Your task to perform on an android device: open sync settings in chrome Image 0: 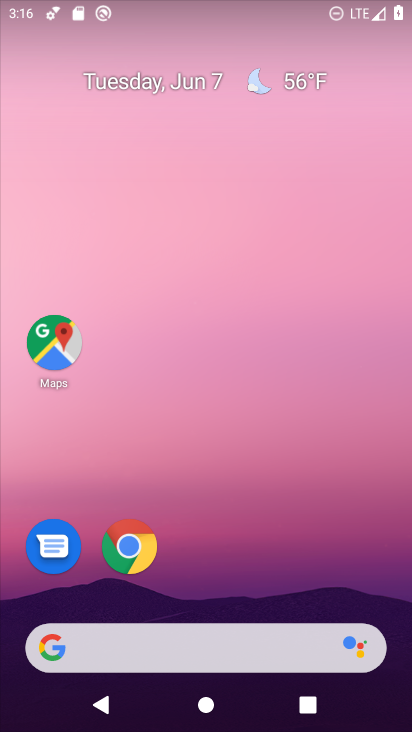
Step 0: drag from (287, 551) to (199, 32)
Your task to perform on an android device: open sync settings in chrome Image 1: 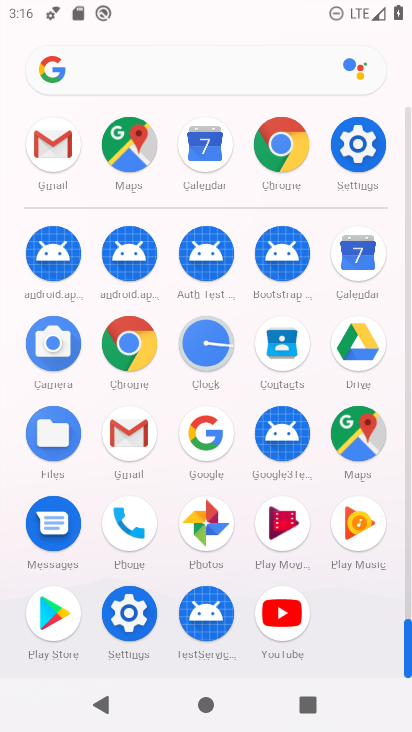
Step 1: drag from (20, 546) to (15, 209)
Your task to perform on an android device: open sync settings in chrome Image 2: 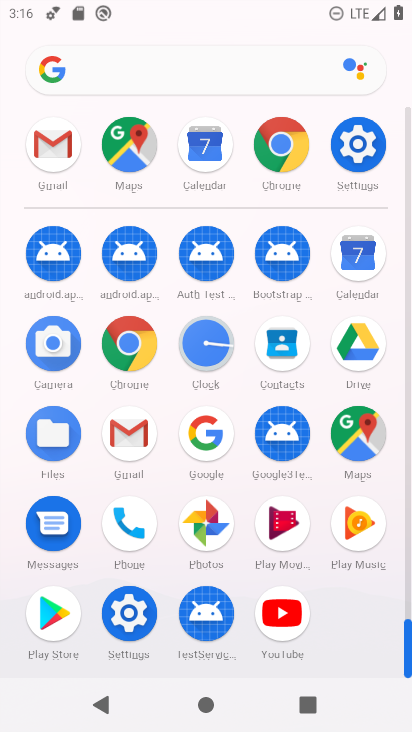
Step 2: click (126, 343)
Your task to perform on an android device: open sync settings in chrome Image 3: 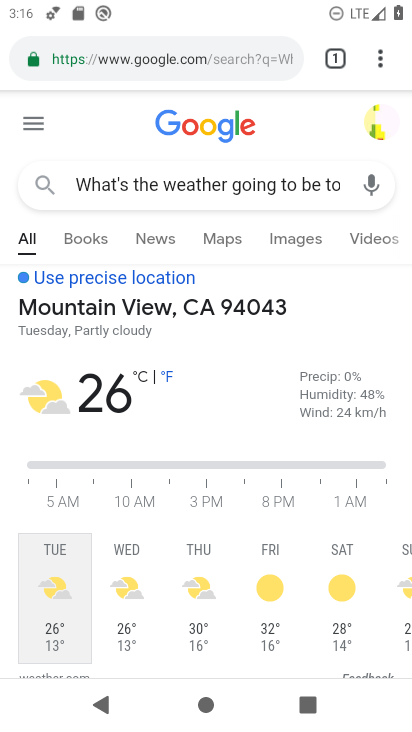
Step 3: drag from (382, 48) to (176, 562)
Your task to perform on an android device: open sync settings in chrome Image 4: 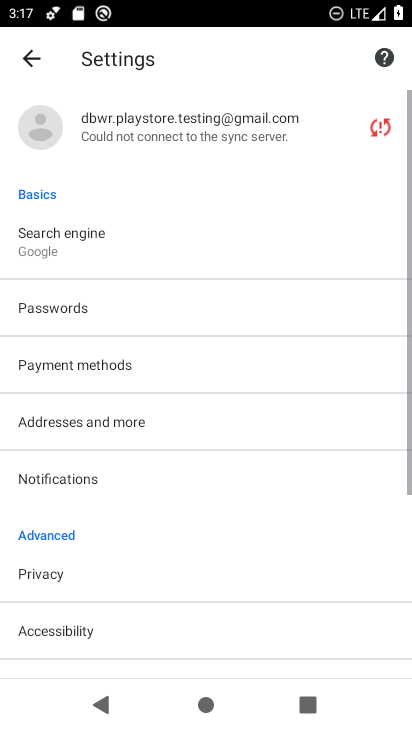
Step 4: click (159, 140)
Your task to perform on an android device: open sync settings in chrome Image 5: 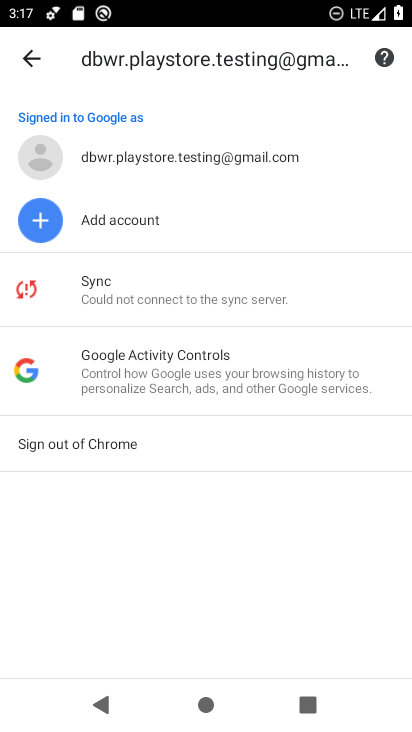
Step 5: click (157, 279)
Your task to perform on an android device: open sync settings in chrome Image 6: 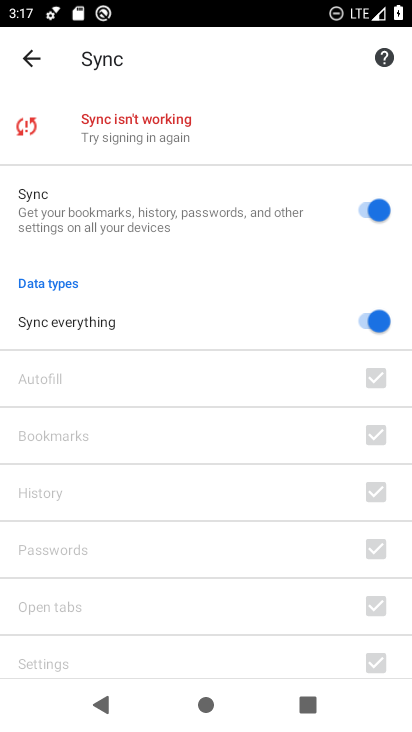
Step 6: task complete